Your task to perform on an android device: Is it going to rain today? Image 0: 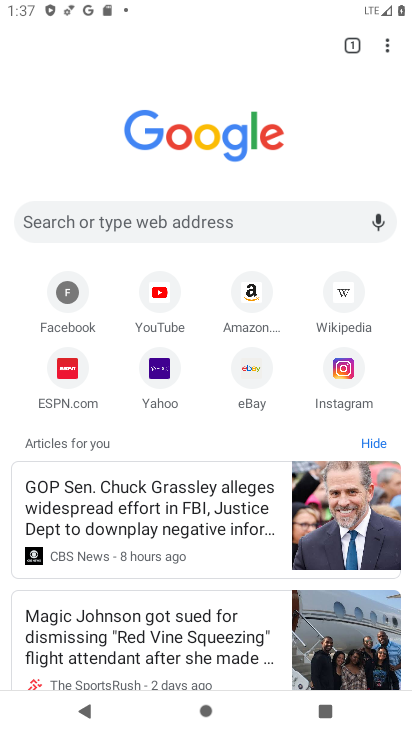
Step 0: press home button
Your task to perform on an android device: Is it going to rain today? Image 1: 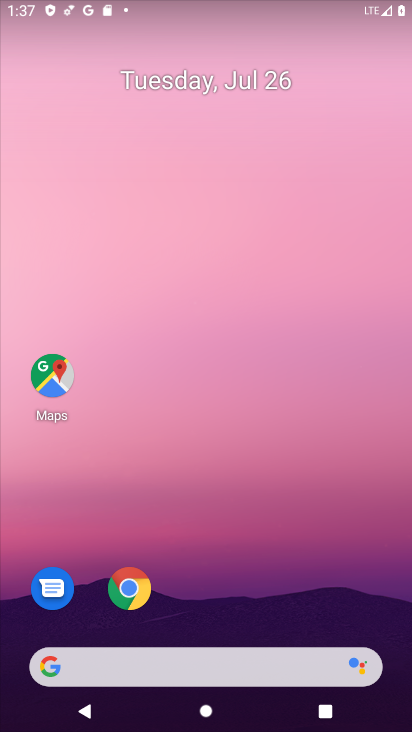
Step 1: drag from (196, 636) to (295, 62)
Your task to perform on an android device: Is it going to rain today? Image 2: 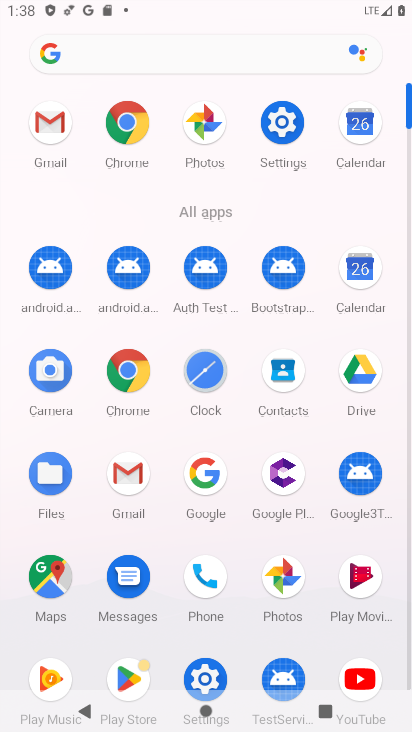
Step 2: click (209, 493)
Your task to perform on an android device: Is it going to rain today? Image 3: 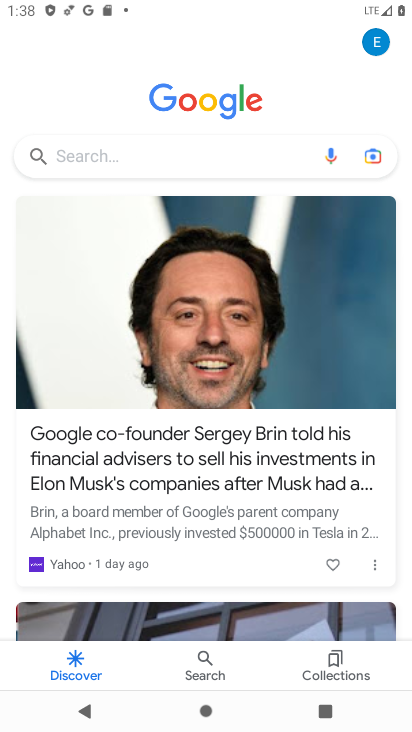
Step 3: click (178, 155)
Your task to perform on an android device: Is it going to rain today? Image 4: 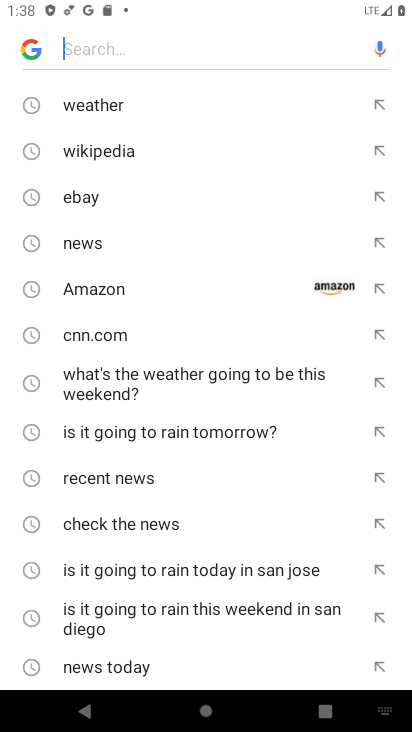
Step 4: click (76, 106)
Your task to perform on an android device: Is it going to rain today? Image 5: 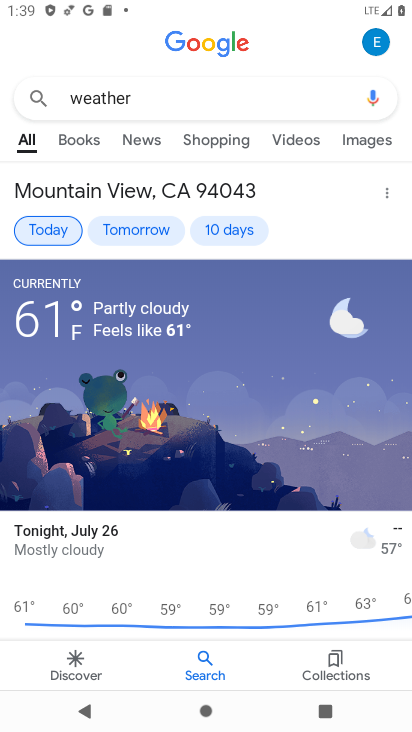
Step 5: task complete